Your task to perform on an android device: remove spam from my inbox in the gmail app Image 0: 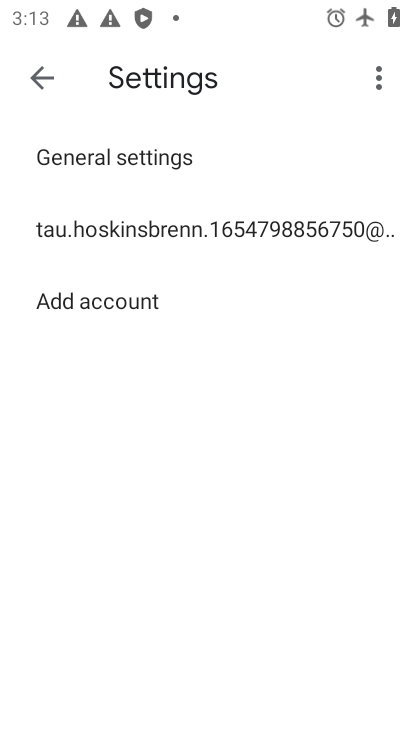
Step 0: press home button
Your task to perform on an android device: remove spam from my inbox in the gmail app Image 1: 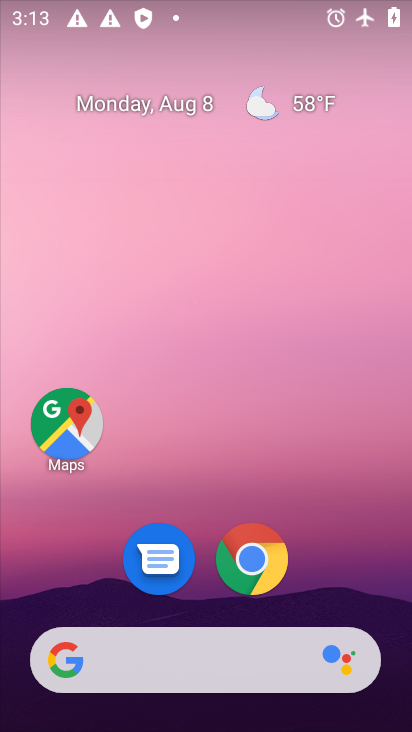
Step 1: drag from (214, 678) to (253, 292)
Your task to perform on an android device: remove spam from my inbox in the gmail app Image 2: 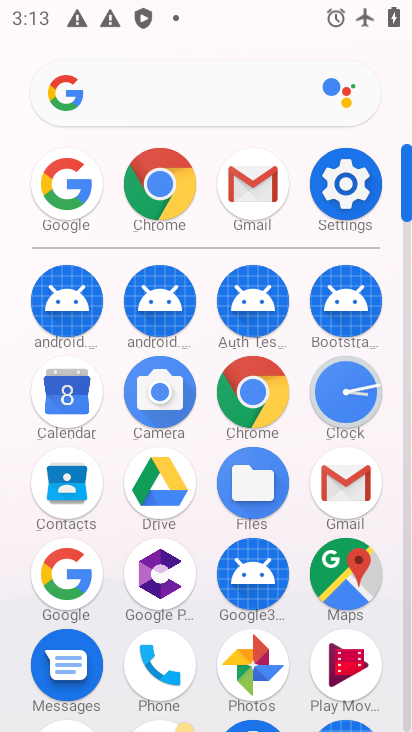
Step 2: click (251, 186)
Your task to perform on an android device: remove spam from my inbox in the gmail app Image 3: 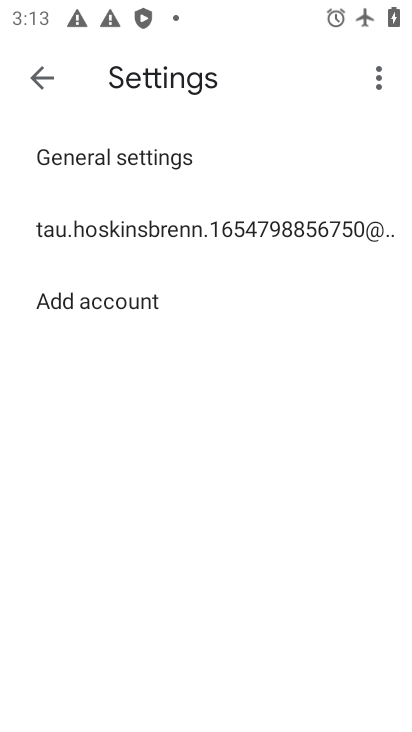
Step 3: click (234, 227)
Your task to perform on an android device: remove spam from my inbox in the gmail app Image 4: 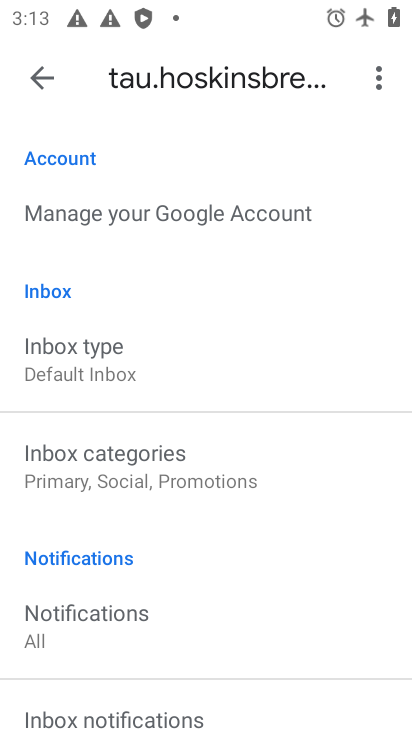
Step 4: task complete